Your task to perform on an android device: Play the new Bruno Mars video on YouTube Image 0: 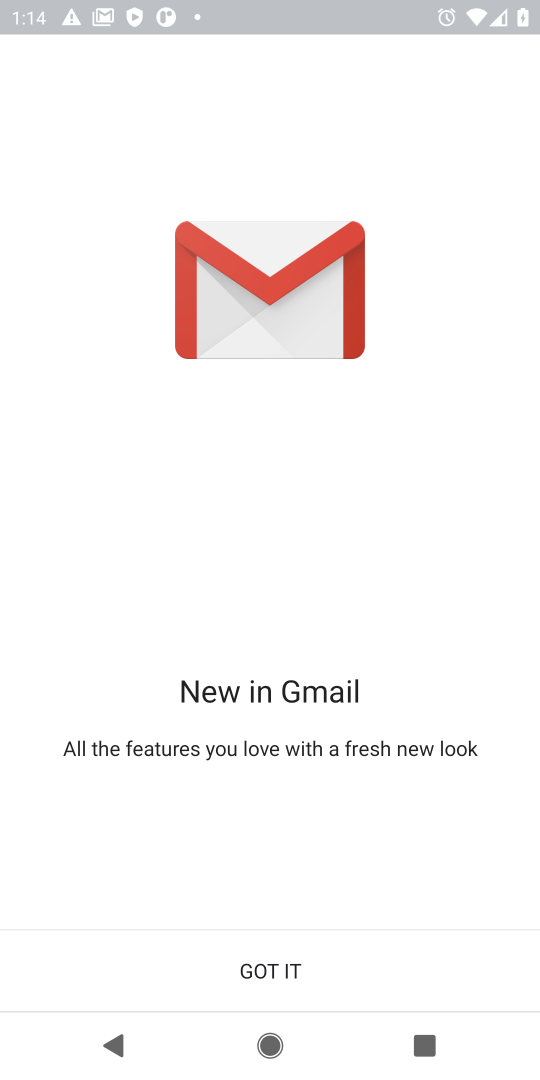
Step 0: press home button
Your task to perform on an android device: Play the new Bruno Mars video on YouTube Image 1: 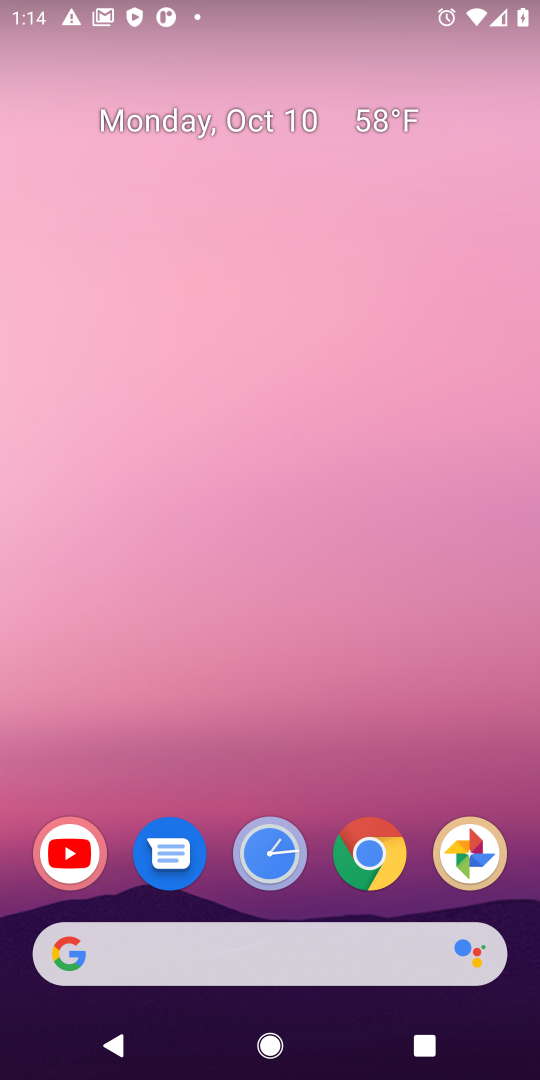
Step 1: click (66, 867)
Your task to perform on an android device: Play the new Bruno Mars video on YouTube Image 2: 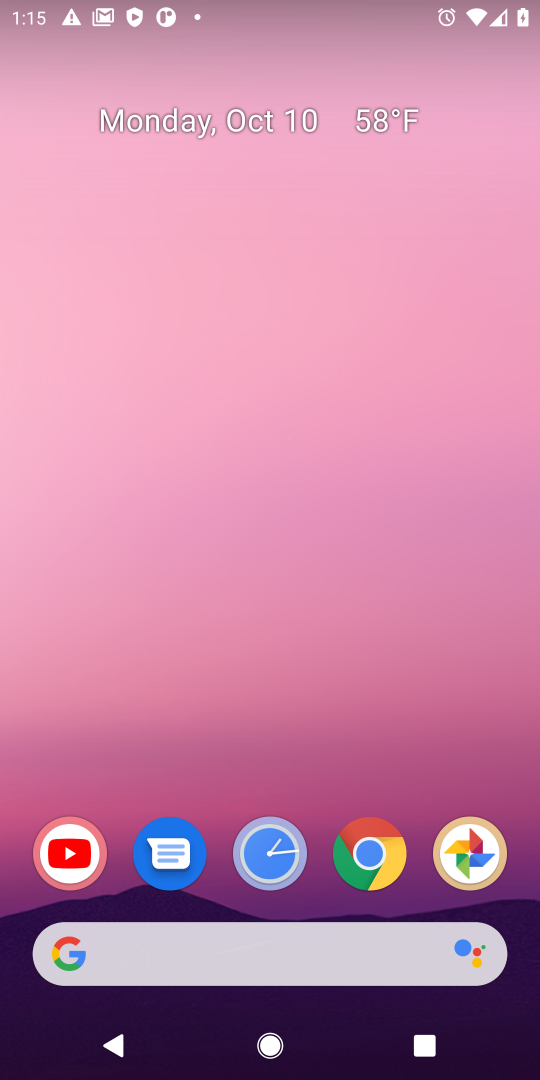
Step 2: click (68, 841)
Your task to perform on an android device: Play the new Bruno Mars video on YouTube Image 3: 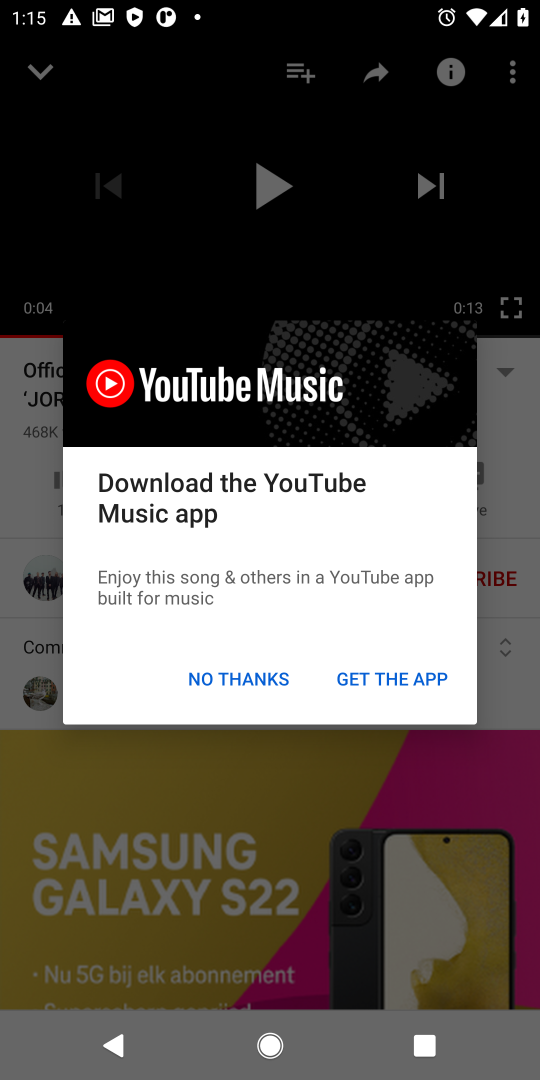
Step 3: click (236, 682)
Your task to perform on an android device: Play the new Bruno Mars video on YouTube Image 4: 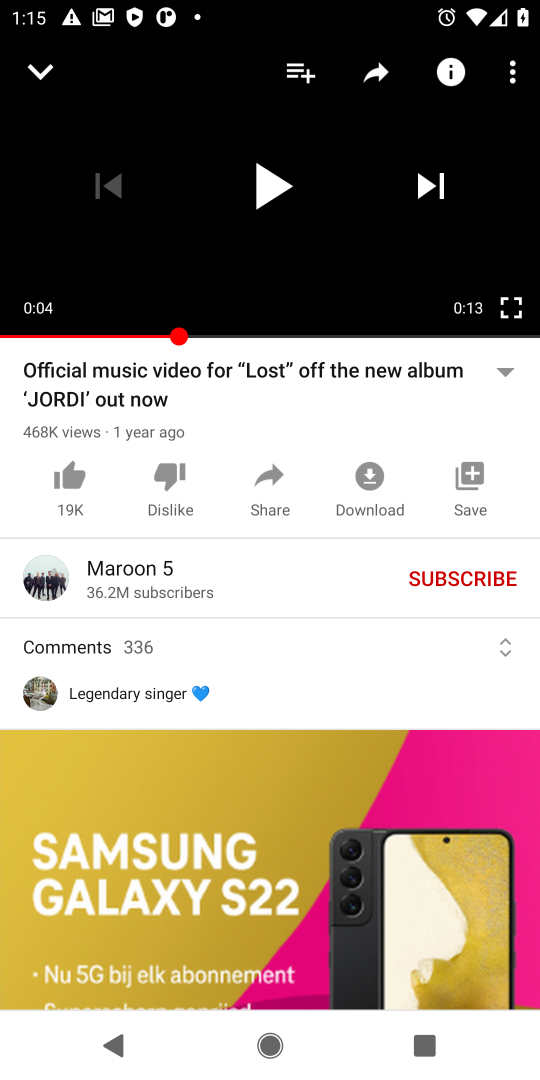
Step 4: click (43, 80)
Your task to perform on an android device: Play the new Bruno Mars video on YouTube Image 5: 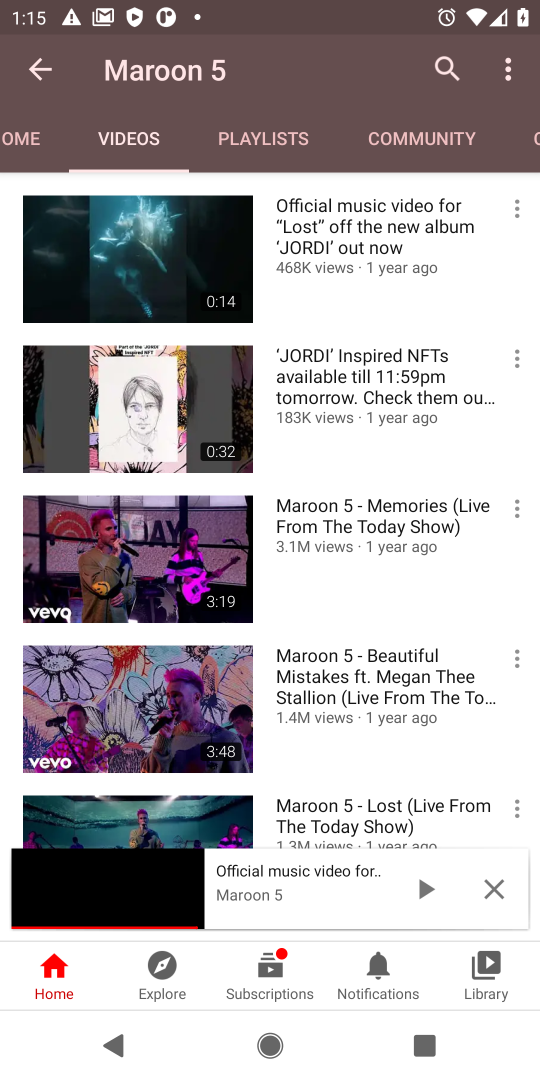
Step 5: click (442, 63)
Your task to perform on an android device: Play the new Bruno Mars video on YouTube Image 6: 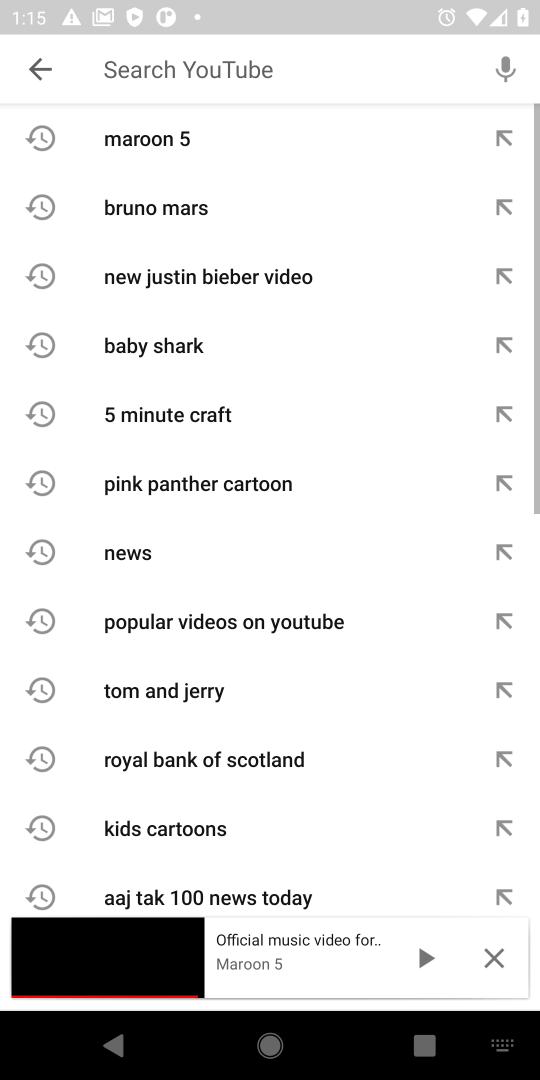
Step 6: click (166, 231)
Your task to perform on an android device: Play the new Bruno Mars video on YouTube Image 7: 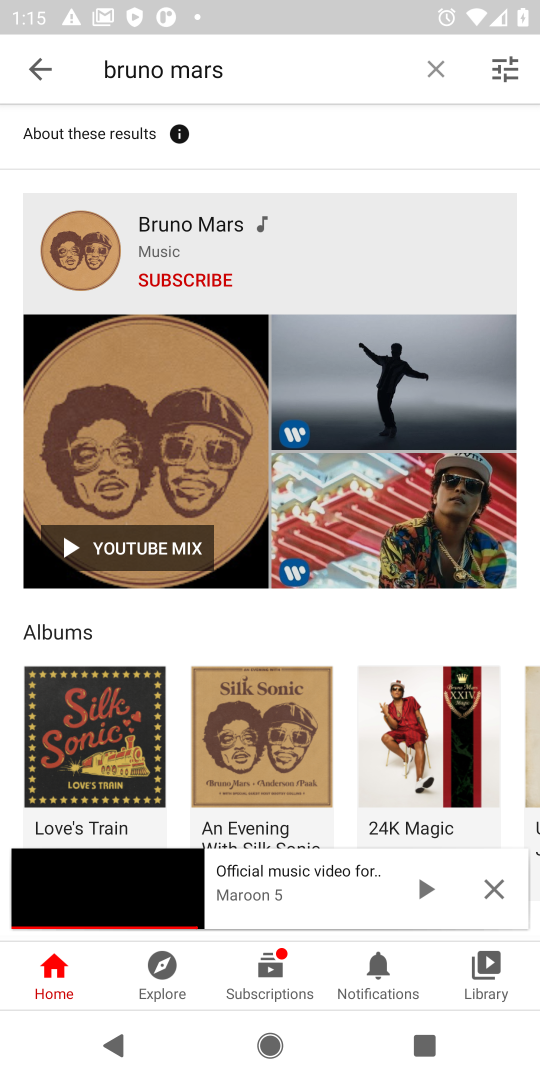
Step 7: click (105, 267)
Your task to perform on an android device: Play the new Bruno Mars video on YouTube Image 8: 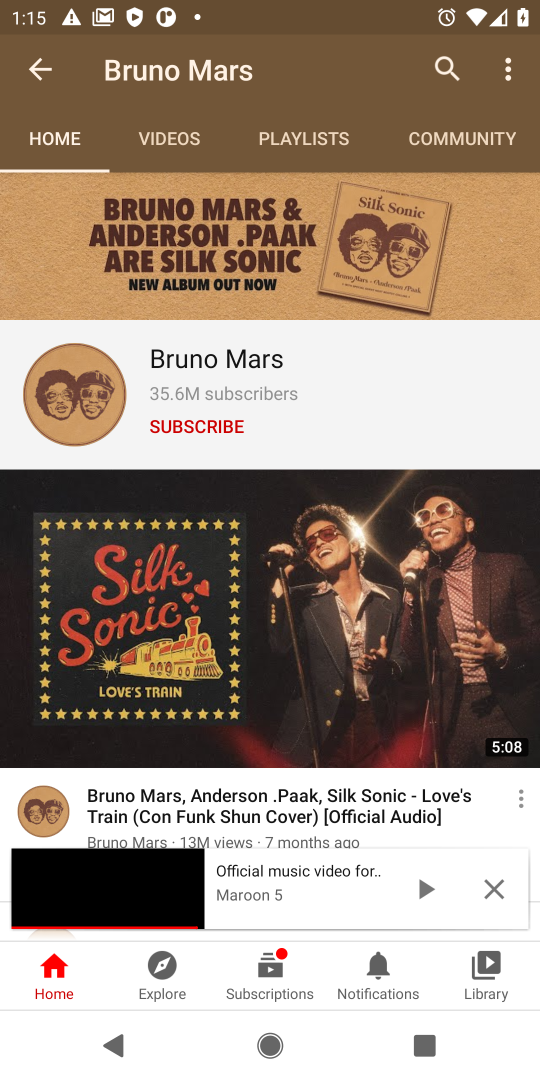
Step 8: click (176, 143)
Your task to perform on an android device: Play the new Bruno Mars video on YouTube Image 9: 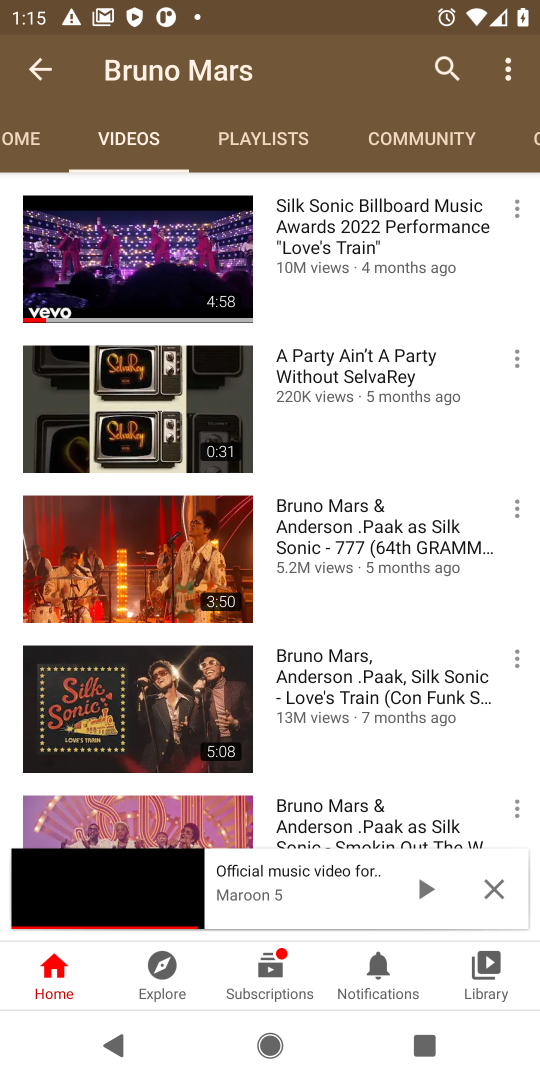
Step 9: click (201, 227)
Your task to perform on an android device: Play the new Bruno Mars video on YouTube Image 10: 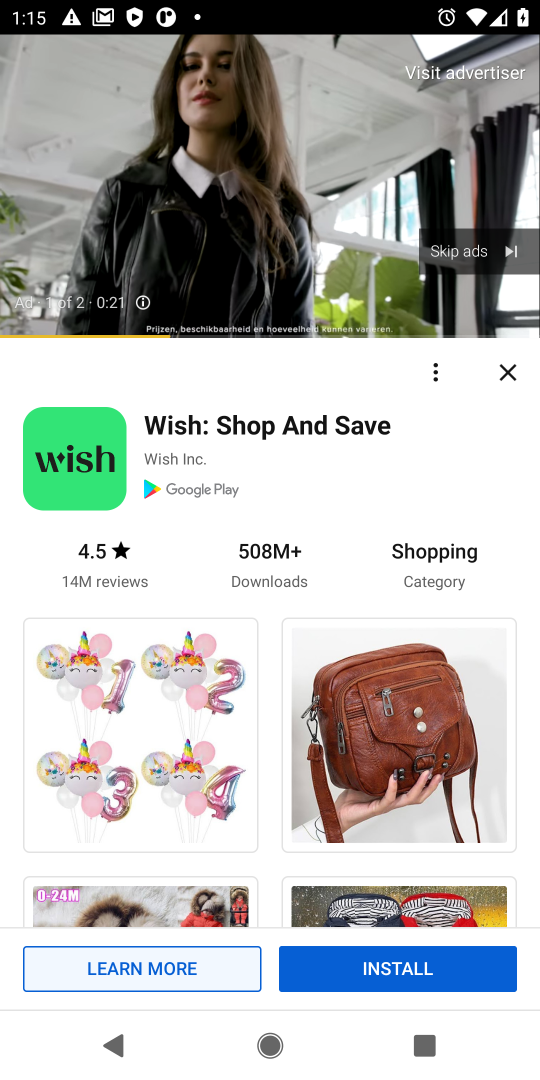
Step 10: click (456, 247)
Your task to perform on an android device: Play the new Bruno Mars video on YouTube Image 11: 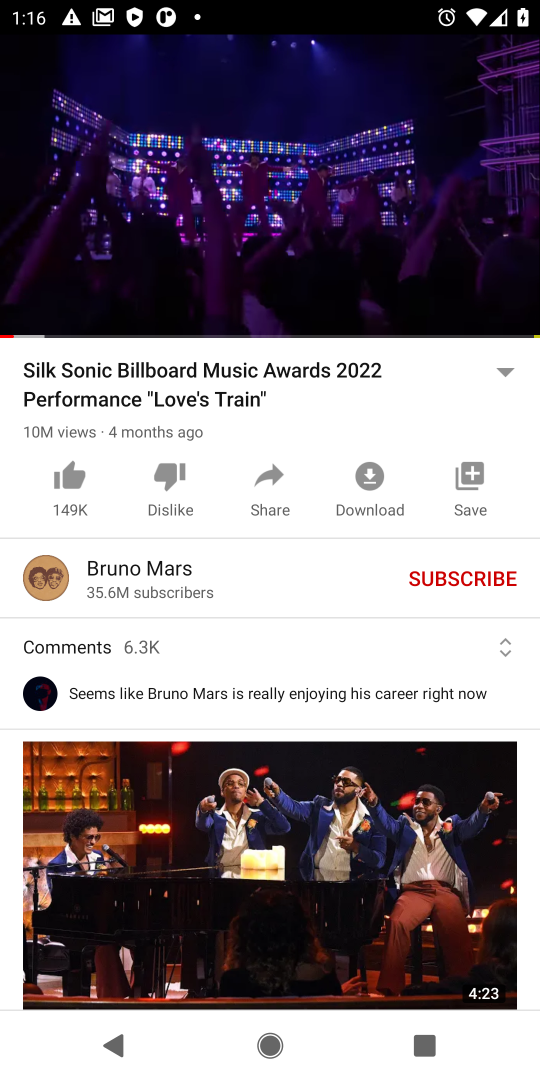
Step 11: task complete